Your task to perform on an android device: View the shopping cart on walmart.com. Search for alienware area 51 on walmart.com, select the first entry, and add it to the cart. Image 0: 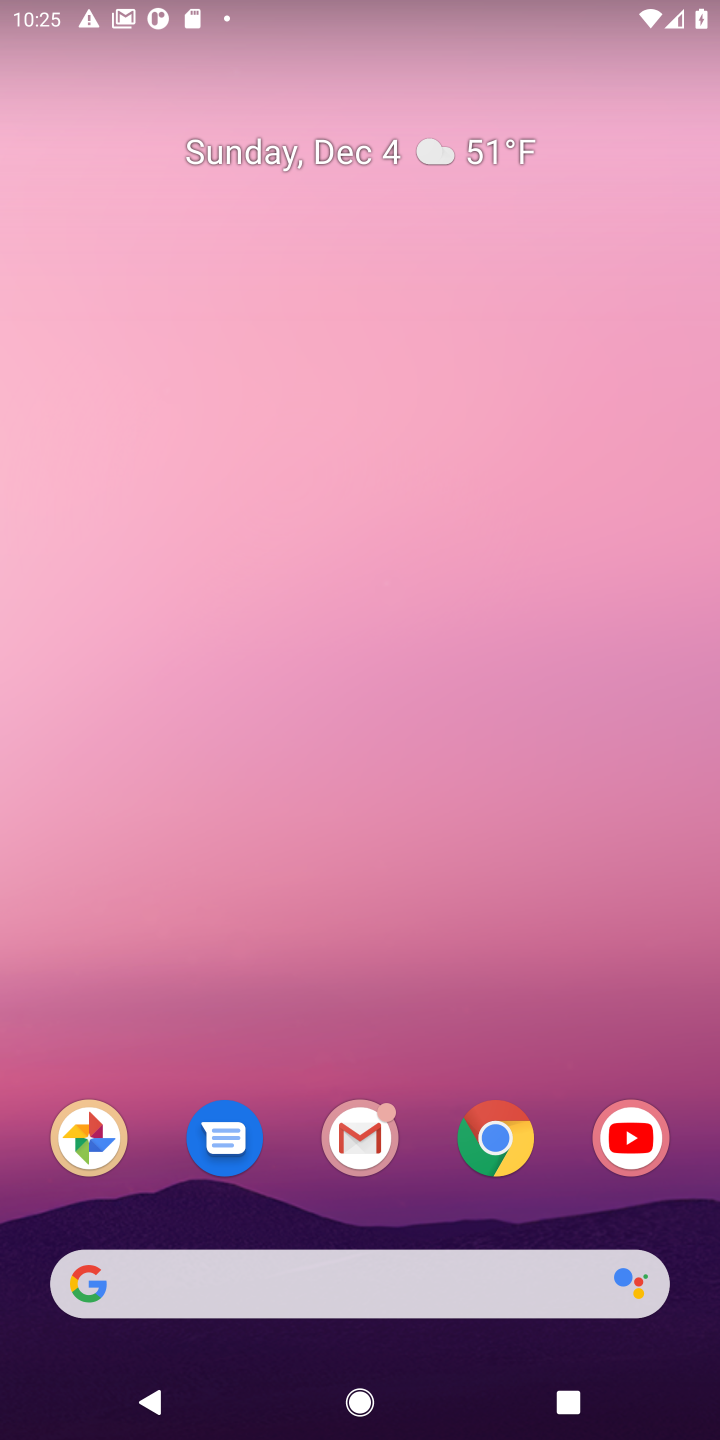
Step 0: click (492, 1147)
Your task to perform on an android device: View the shopping cart on walmart.com. Search for alienware area 51 on walmart.com, select the first entry, and add it to the cart. Image 1: 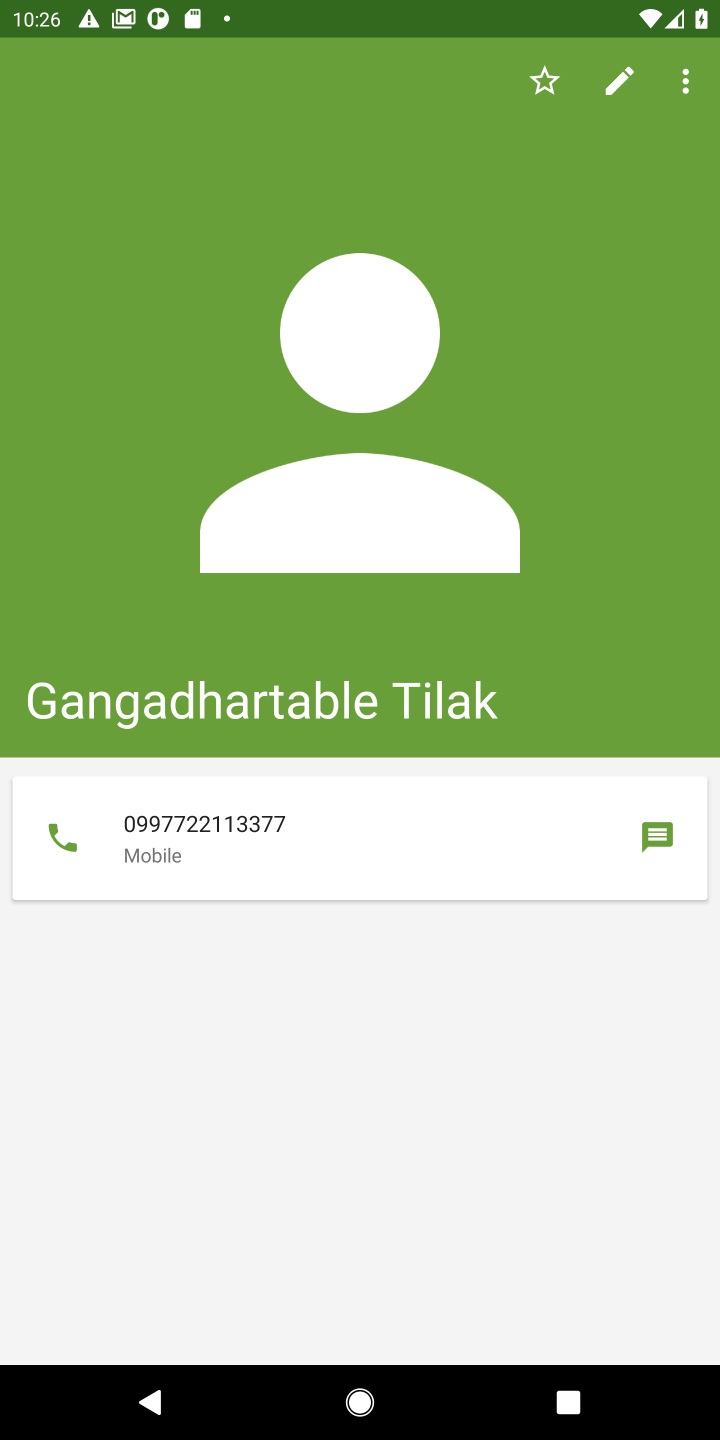
Step 1: press home button
Your task to perform on an android device: View the shopping cart on walmart.com. Search for alienware area 51 on walmart.com, select the first entry, and add it to the cart. Image 2: 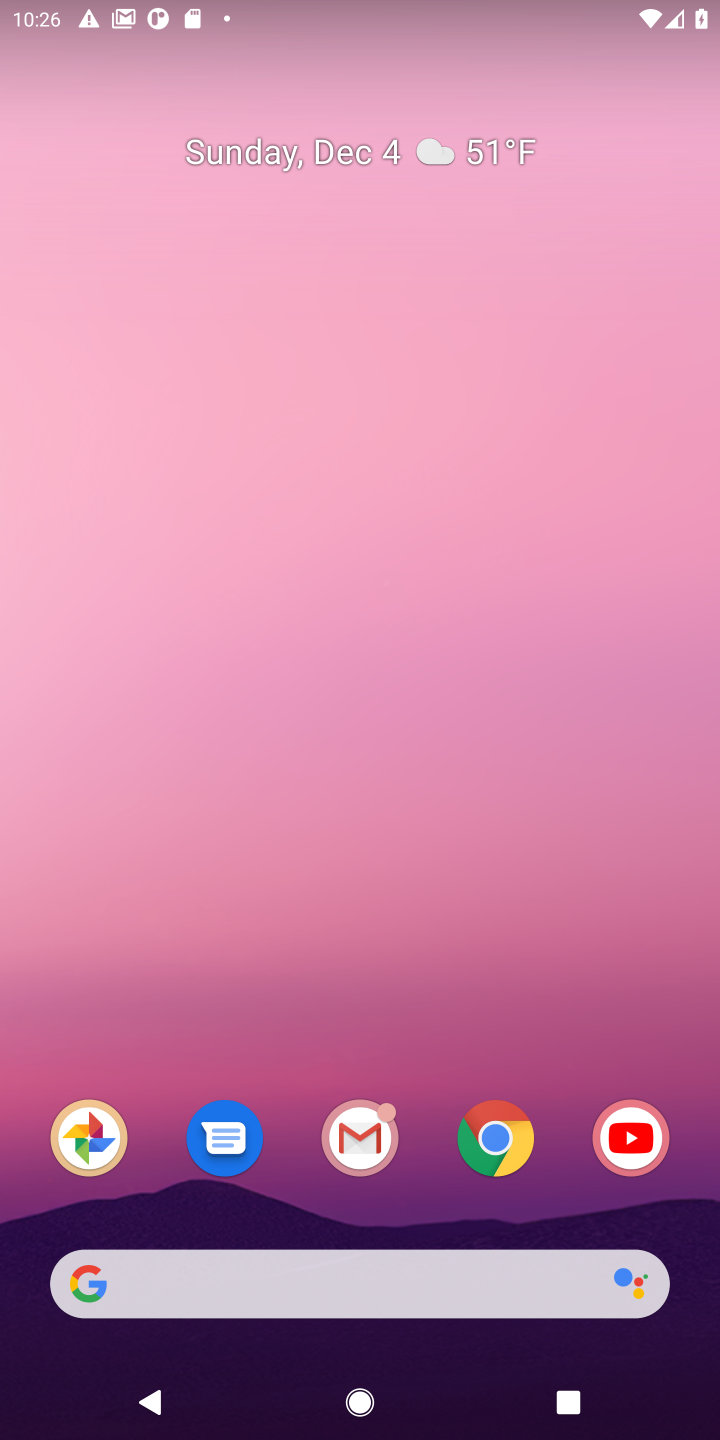
Step 2: click (500, 1141)
Your task to perform on an android device: View the shopping cart on walmart.com. Search for alienware area 51 on walmart.com, select the first entry, and add it to the cart. Image 3: 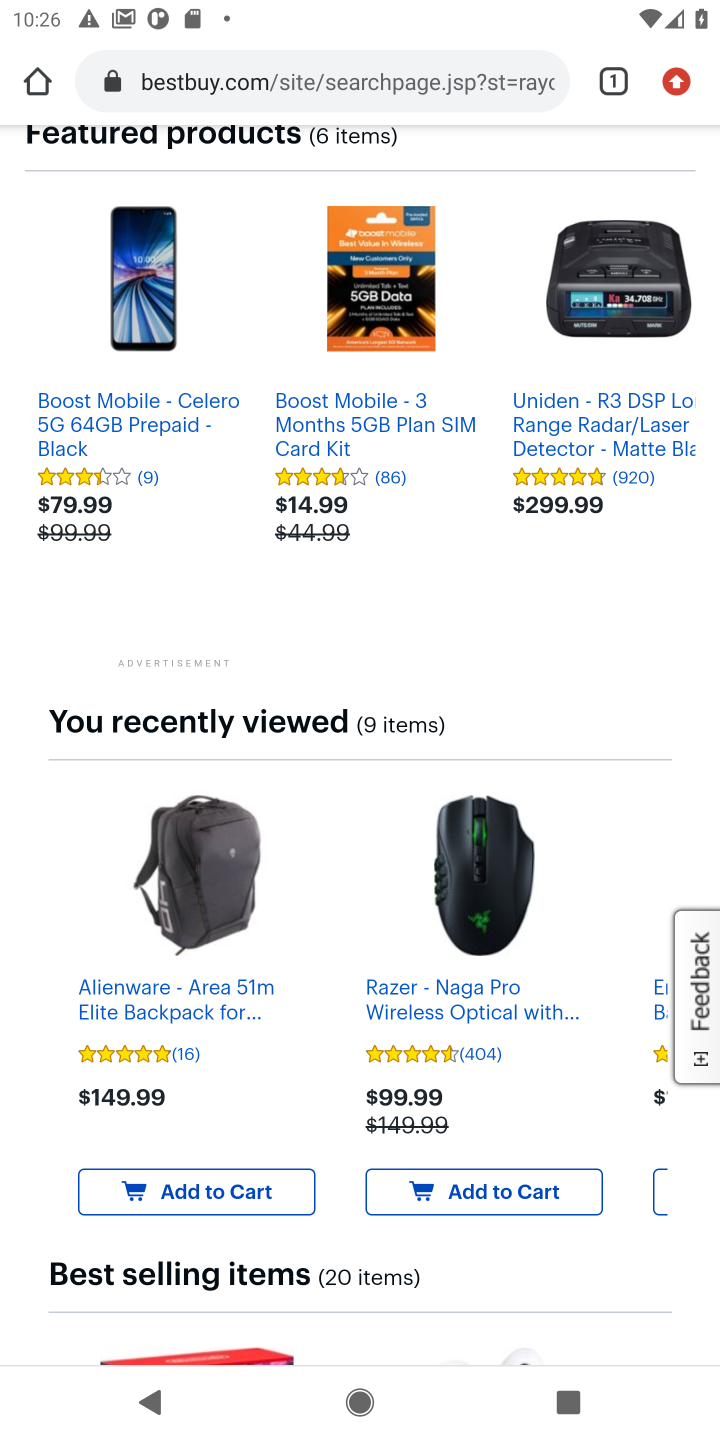
Step 3: click (418, 78)
Your task to perform on an android device: View the shopping cart on walmart.com. Search for alienware area 51 on walmart.com, select the first entry, and add it to the cart. Image 4: 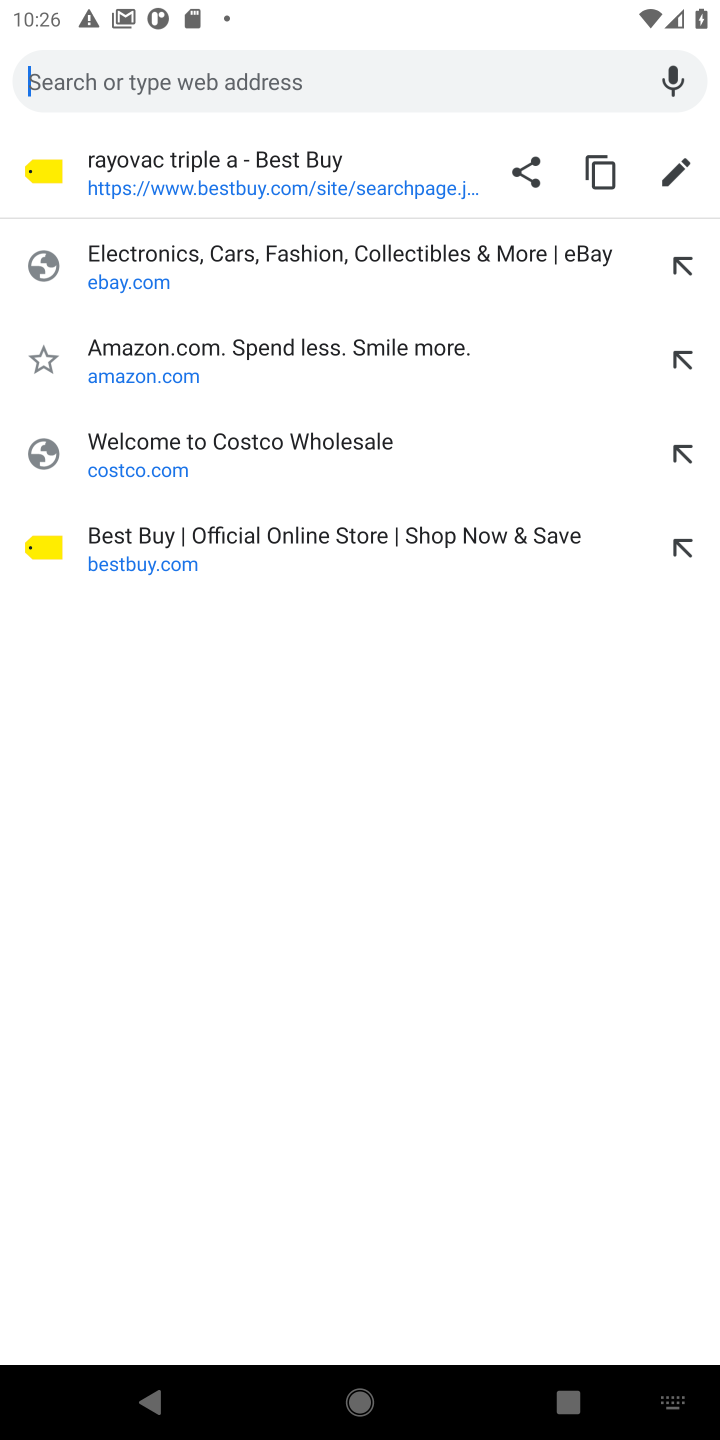
Step 4: type "walmart.com"
Your task to perform on an android device: View the shopping cart on walmart.com. Search for alienware area 51 on walmart.com, select the first entry, and add it to the cart. Image 5: 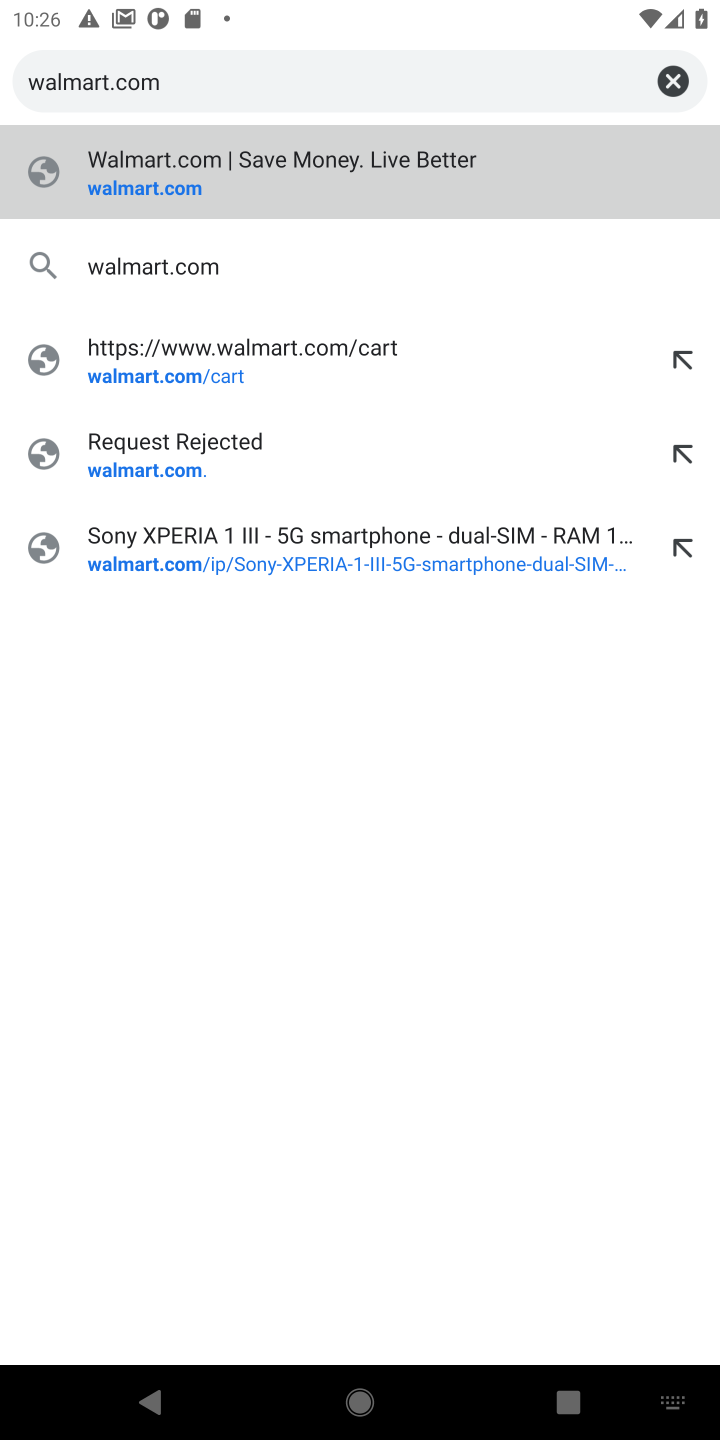
Step 5: press enter
Your task to perform on an android device: View the shopping cart on walmart.com. Search for alienware area 51 on walmart.com, select the first entry, and add it to the cart. Image 6: 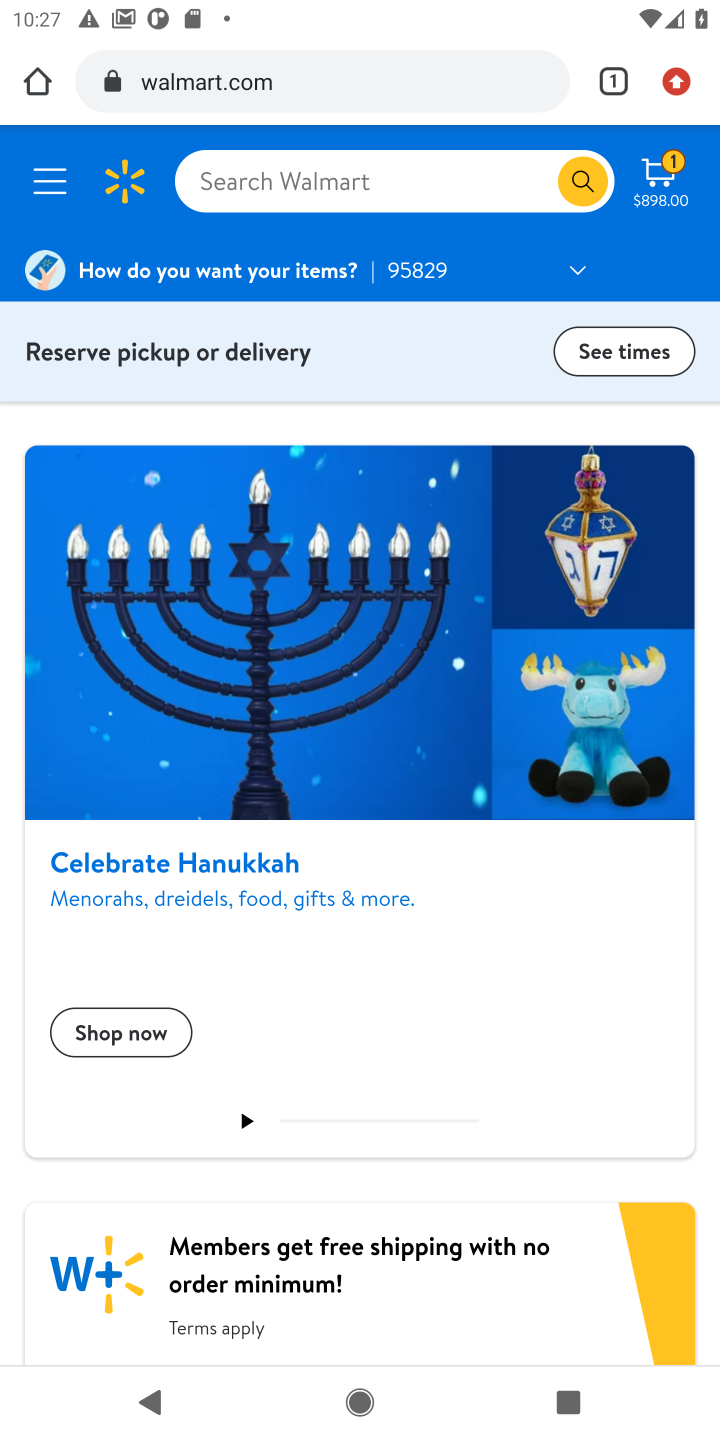
Step 6: click (369, 173)
Your task to perform on an android device: View the shopping cart on walmart.com. Search for alienware area 51 on walmart.com, select the first entry, and add it to the cart. Image 7: 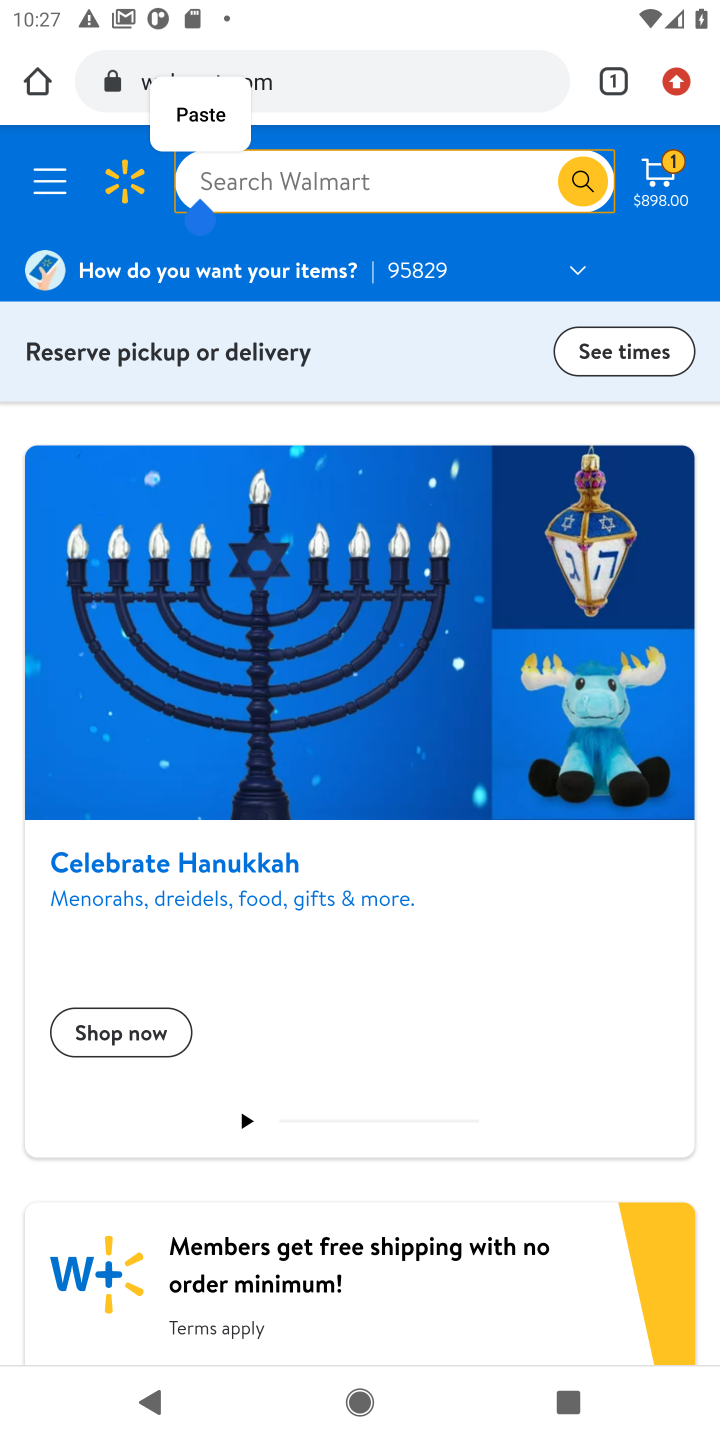
Step 7: press enter
Your task to perform on an android device: View the shopping cart on walmart.com. Search for alienware area 51 on walmart.com, select the first entry, and add it to the cart. Image 8: 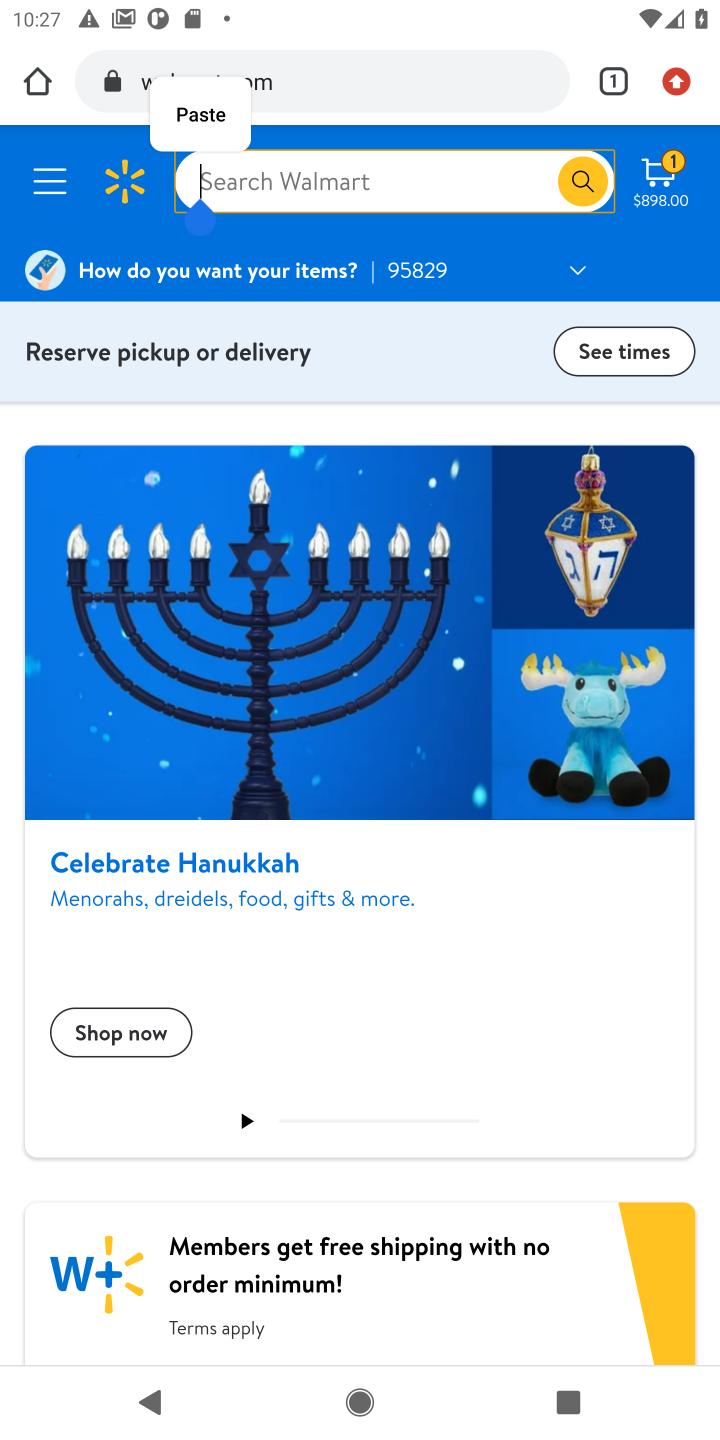
Step 8: type "alienware area 51"
Your task to perform on an android device: View the shopping cart on walmart.com. Search for alienware area 51 on walmart.com, select the first entry, and add it to the cart. Image 9: 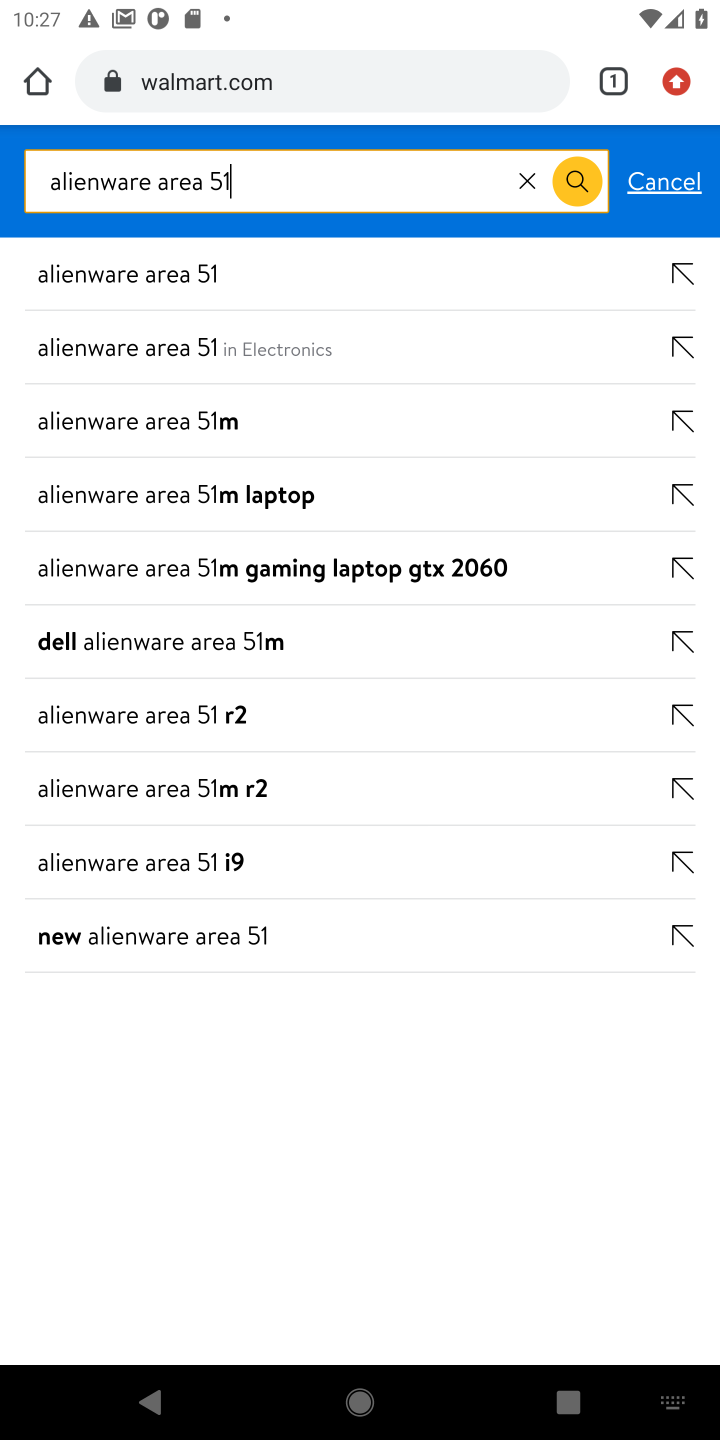
Step 9: click (123, 270)
Your task to perform on an android device: View the shopping cart on walmart.com. Search for alienware area 51 on walmart.com, select the first entry, and add it to the cart. Image 10: 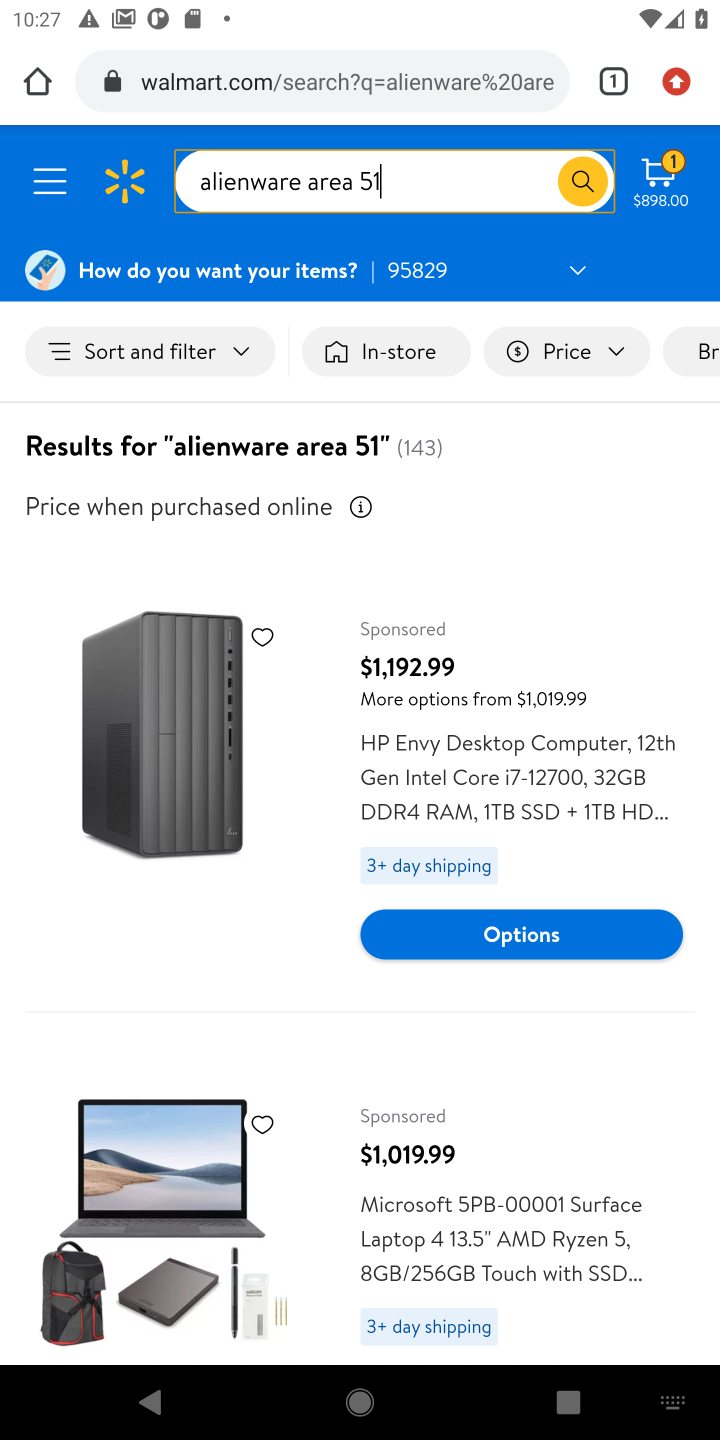
Step 10: drag from (583, 1039) to (531, 481)
Your task to perform on an android device: View the shopping cart on walmart.com. Search for alienware area 51 on walmart.com, select the first entry, and add it to the cart. Image 11: 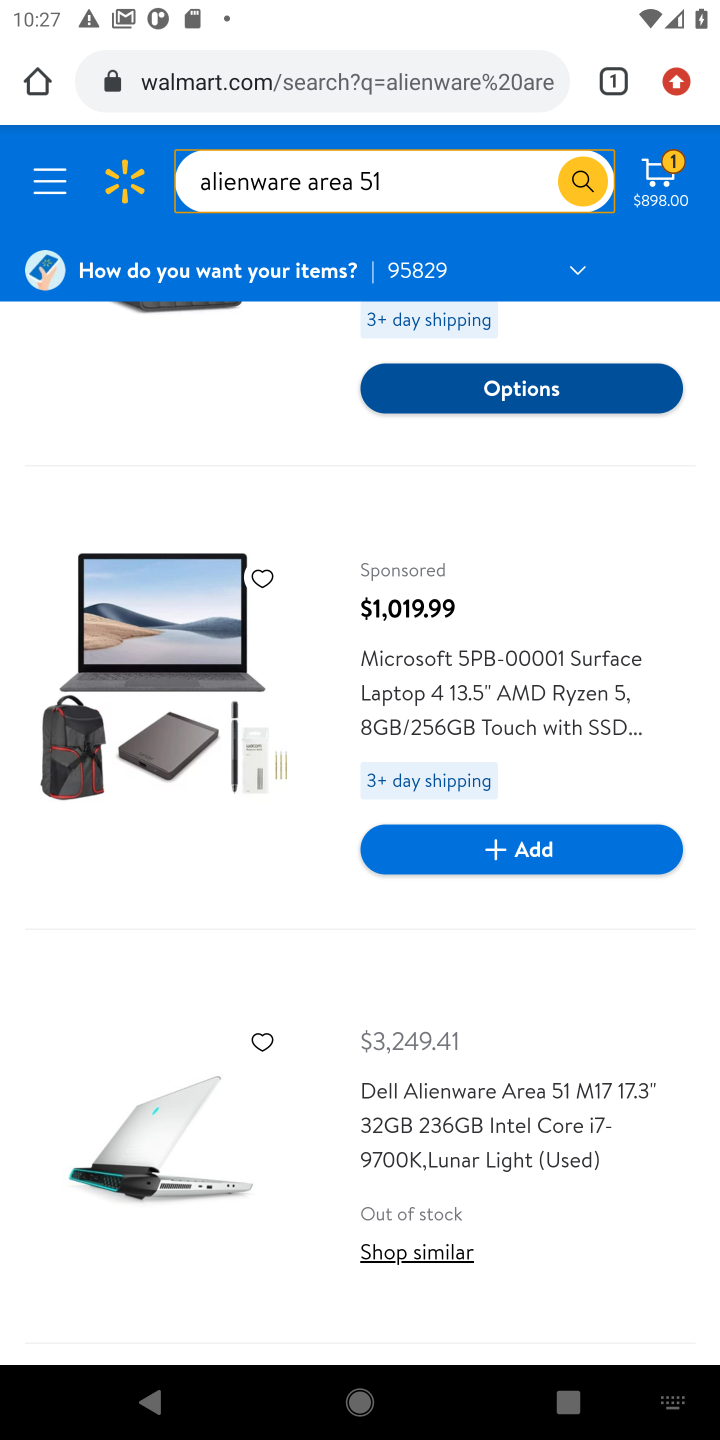
Step 11: click (132, 1125)
Your task to perform on an android device: View the shopping cart on walmart.com. Search for alienware area 51 on walmart.com, select the first entry, and add it to the cart. Image 12: 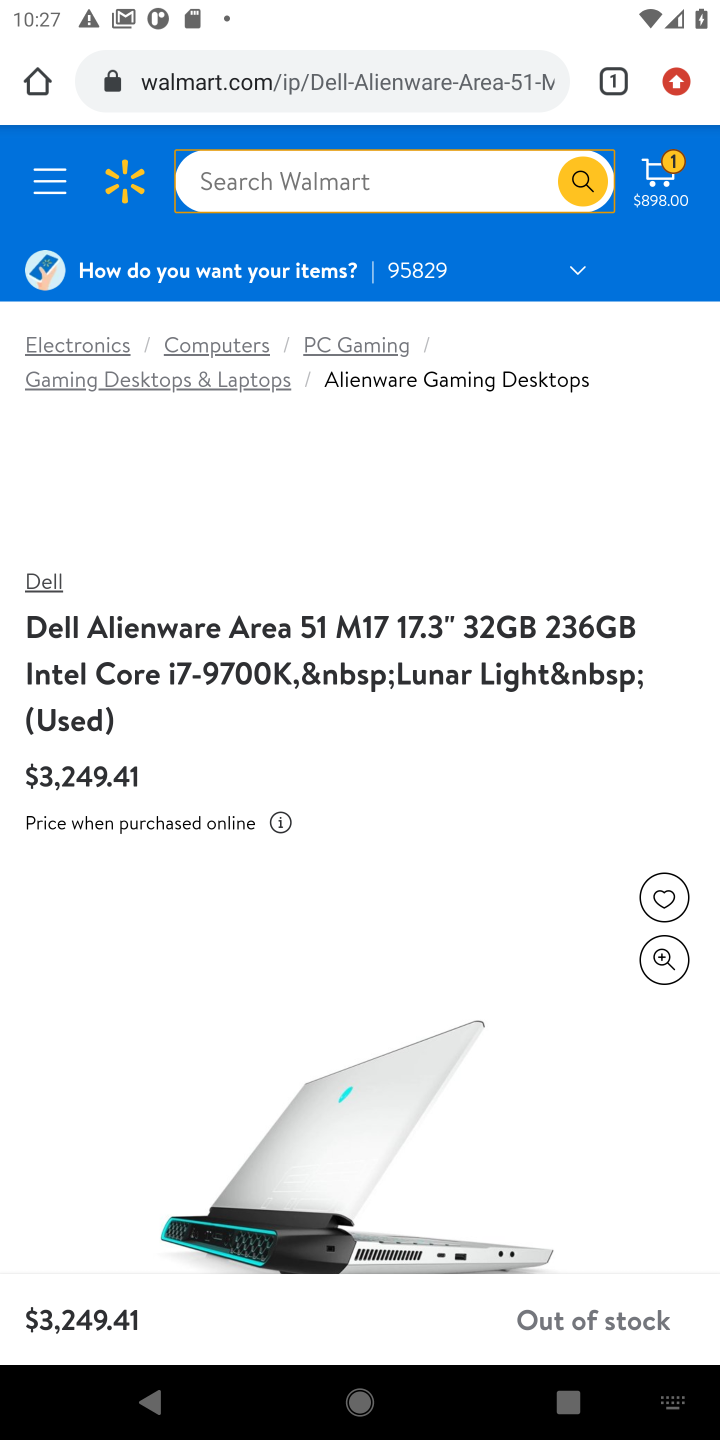
Step 12: task complete